Your task to perform on an android device: Turn on the flashlight Image 0: 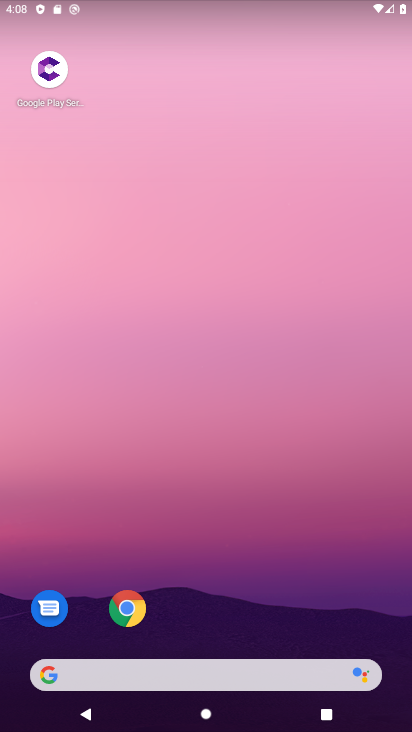
Step 0: drag from (201, 90) to (324, 491)
Your task to perform on an android device: Turn on the flashlight Image 1: 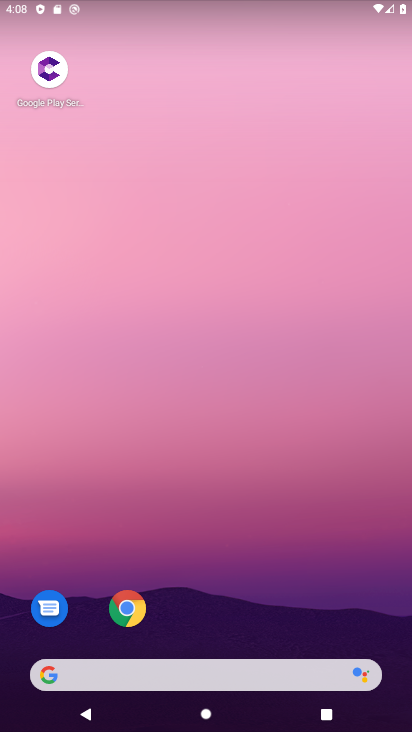
Step 1: drag from (242, 13) to (396, 482)
Your task to perform on an android device: Turn on the flashlight Image 2: 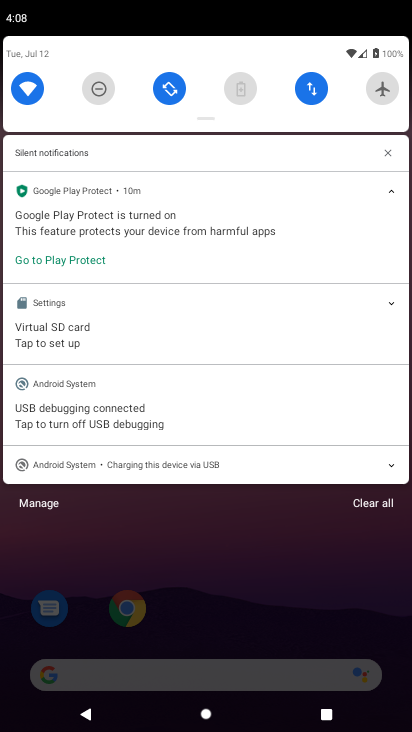
Step 2: drag from (294, 420) to (302, 463)
Your task to perform on an android device: Turn on the flashlight Image 3: 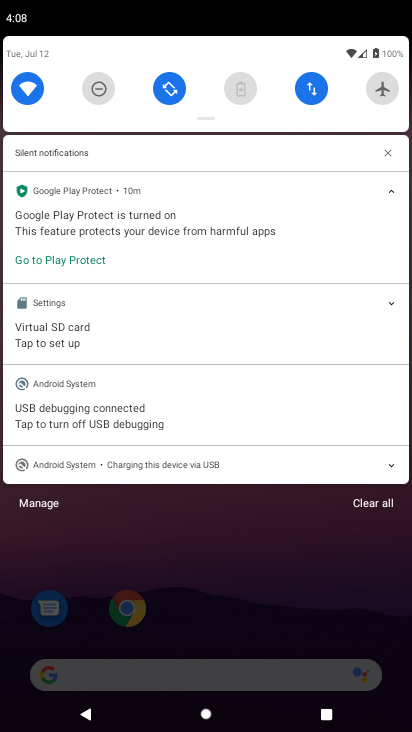
Step 3: drag from (248, 51) to (315, 500)
Your task to perform on an android device: Turn on the flashlight Image 4: 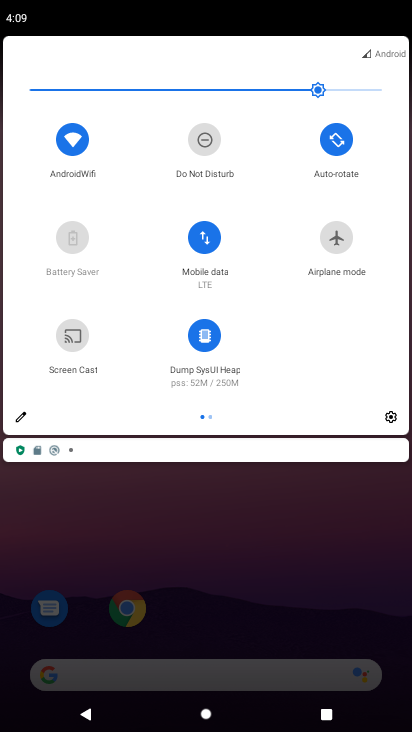
Step 4: click (385, 417)
Your task to perform on an android device: Turn on the flashlight Image 5: 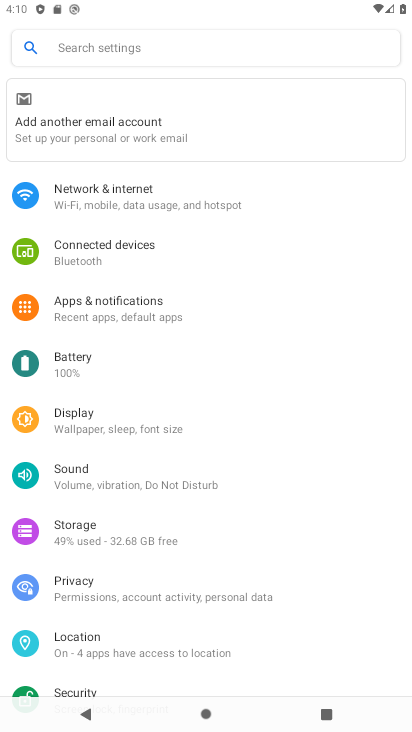
Step 5: task complete